Your task to perform on an android device: Open location settings Image 0: 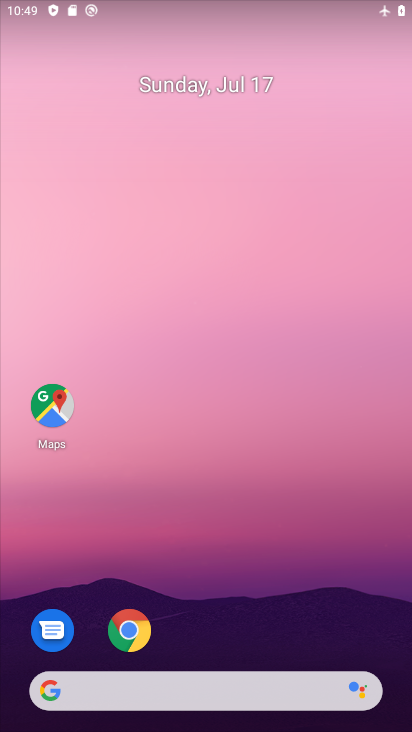
Step 0: drag from (193, 634) to (179, 57)
Your task to perform on an android device: Open location settings Image 1: 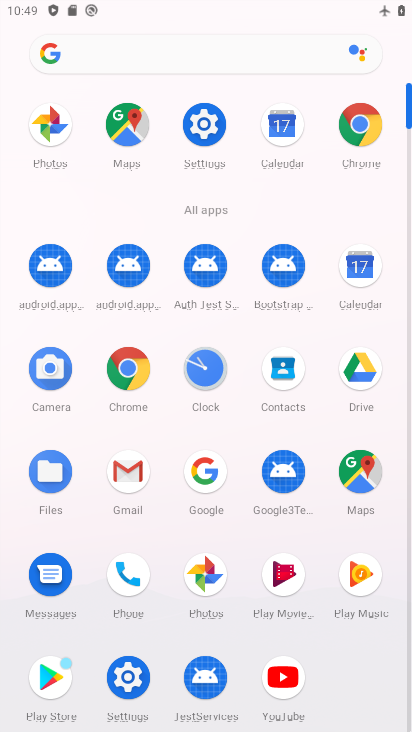
Step 1: click (211, 104)
Your task to perform on an android device: Open location settings Image 2: 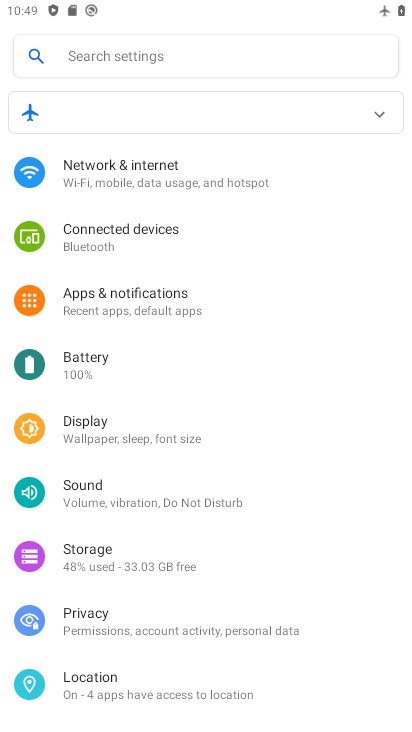
Step 2: click (123, 681)
Your task to perform on an android device: Open location settings Image 3: 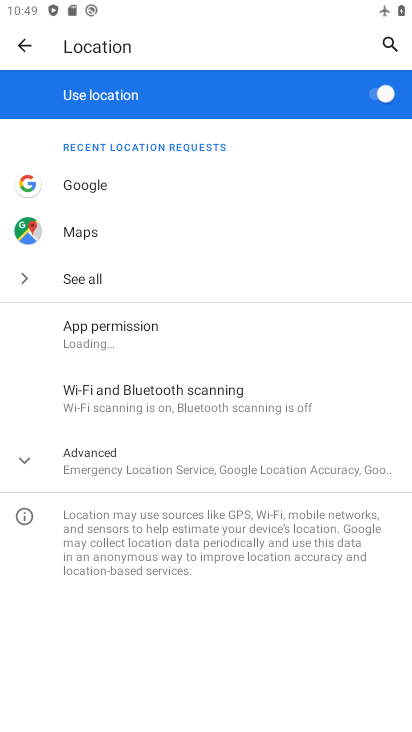
Step 3: click (117, 465)
Your task to perform on an android device: Open location settings Image 4: 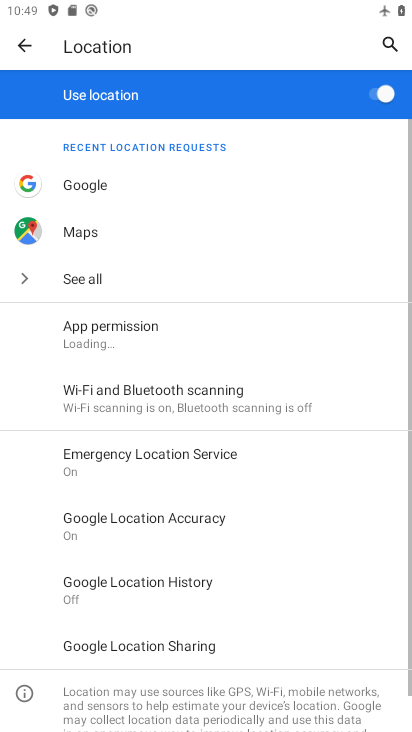
Step 4: task complete